Your task to perform on an android device: Open Google Chrome Image 0: 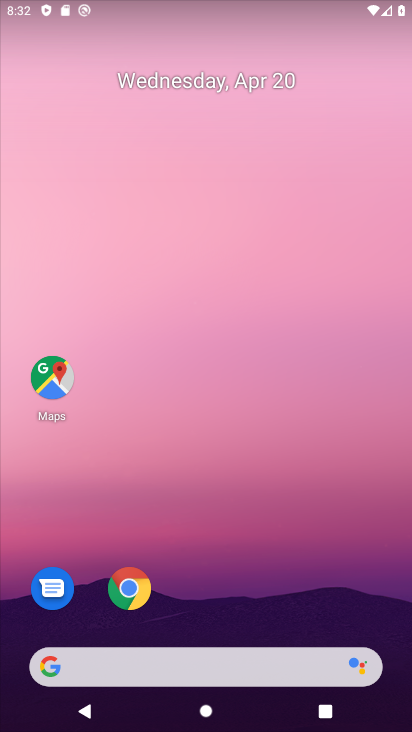
Step 0: click (143, 598)
Your task to perform on an android device: Open Google Chrome Image 1: 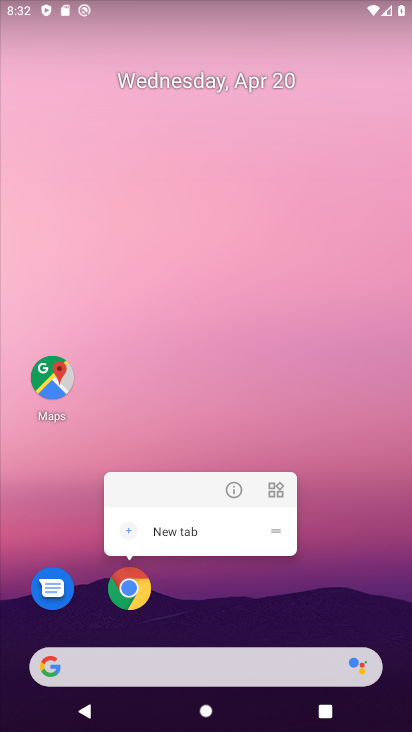
Step 1: click (135, 595)
Your task to perform on an android device: Open Google Chrome Image 2: 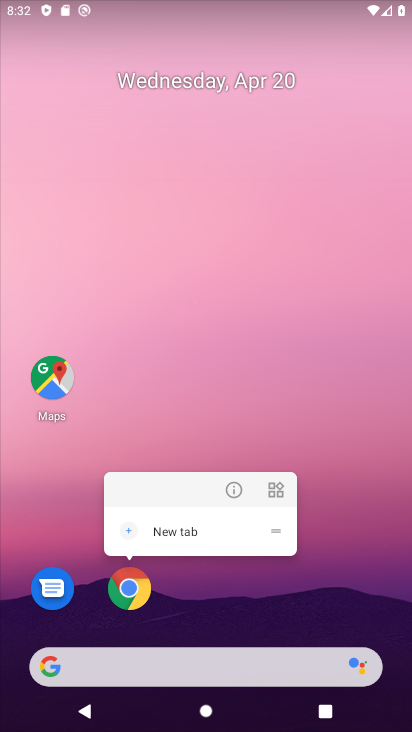
Step 2: click (125, 599)
Your task to perform on an android device: Open Google Chrome Image 3: 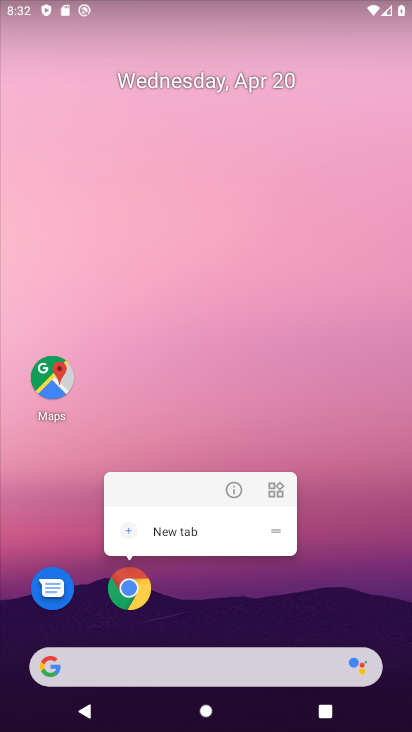
Step 3: click (125, 599)
Your task to perform on an android device: Open Google Chrome Image 4: 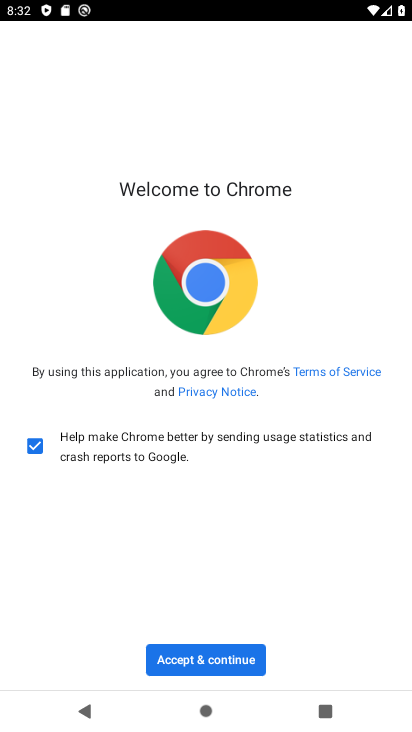
Step 4: click (221, 663)
Your task to perform on an android device: Open Google Chrome Image 5: 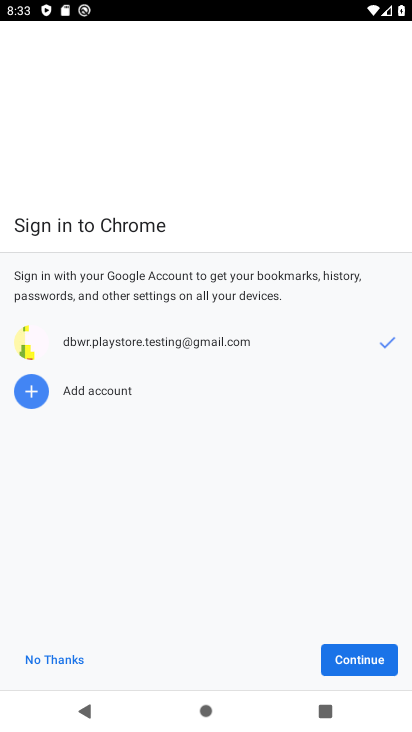
Step 5: click (362, 647)
Your task to perform on an android device: Open Google Chrome Image 6: 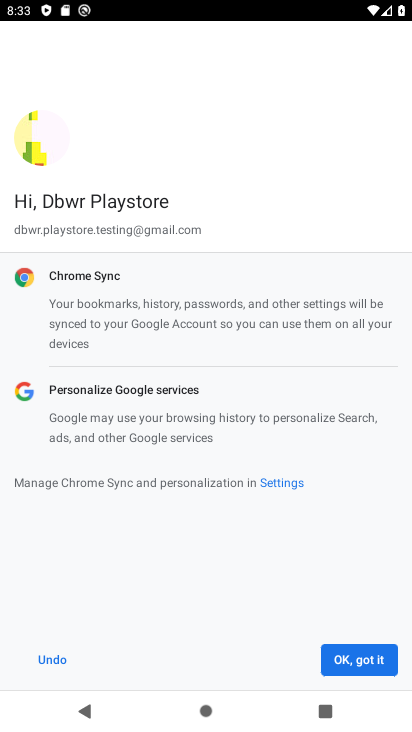
Step 6: click (356, 660)
Your task to perform on an android device: Open Google Chrome Image 7: 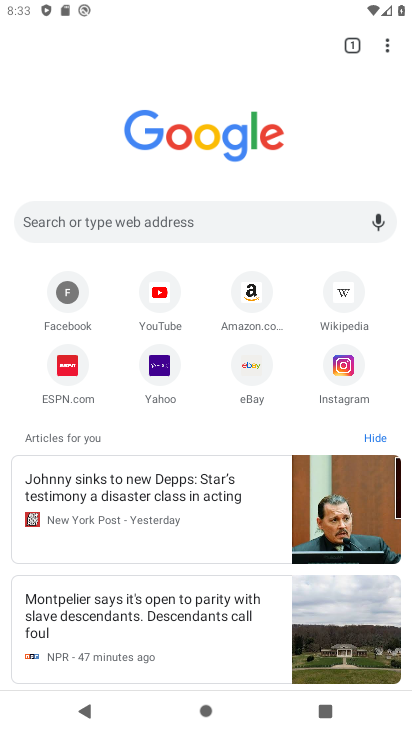
Step 7: task complete